Your task to perform on an android device: toggle sleep mode Image 0: 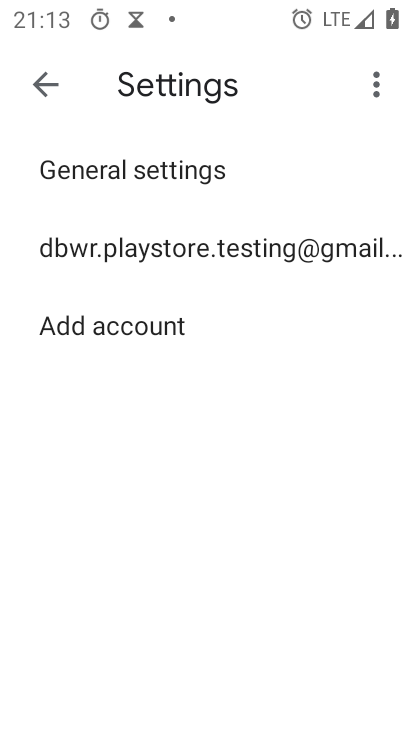
Step 0: press home button
Your task to perform on an android device: toggle sleep mode Image 1: 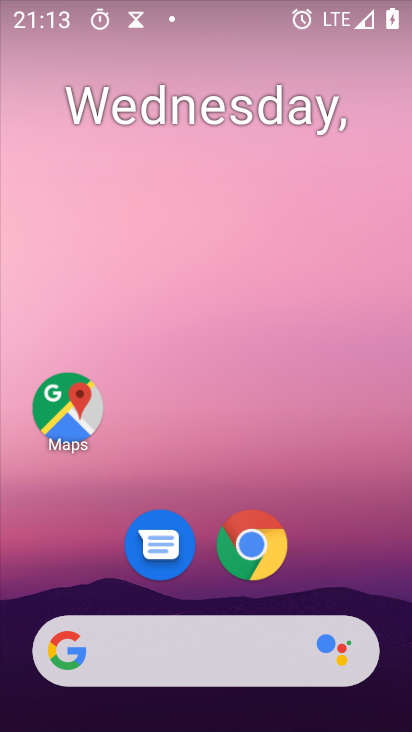
Step 1: drag from (186, 652) to (352, 129)
Your task to perform on an android device: toggle sleep mode Image 2: 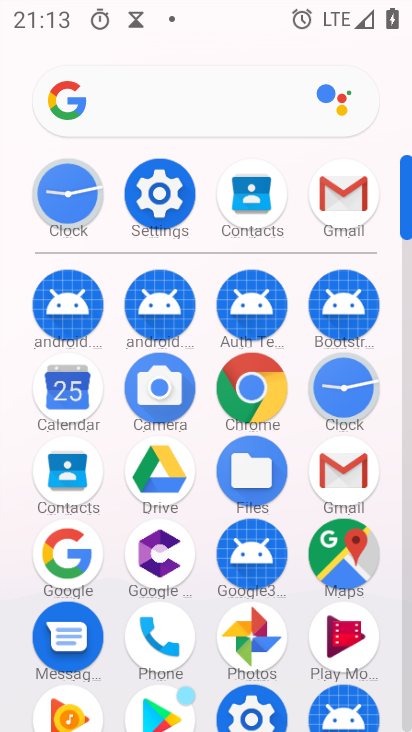
Step 2: click (165, 198)
Your task to perform on an android device: toggle sleep mode Image 3: 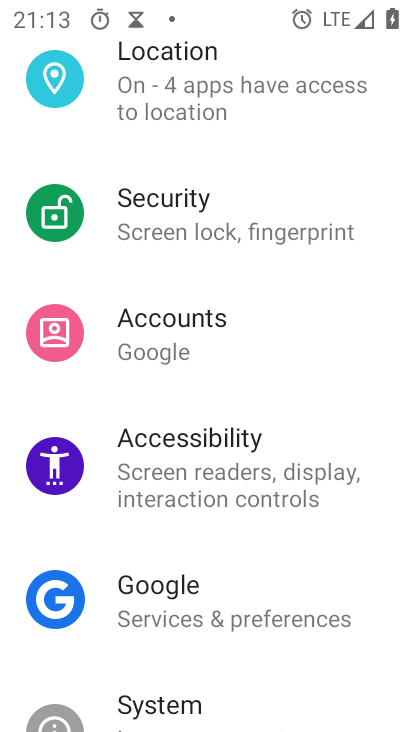
Step 3: drag from (292, 175) to (262, 559)
Your task to perform on an android device: toggle sleep mode Image 4: 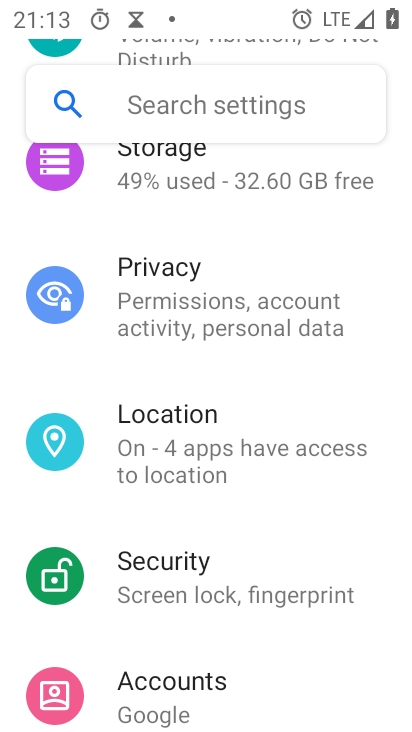
Step 4: drag from (293, 239) to (212, 571)
Your task to perform on an android device: toggle sleep mode Image 5: 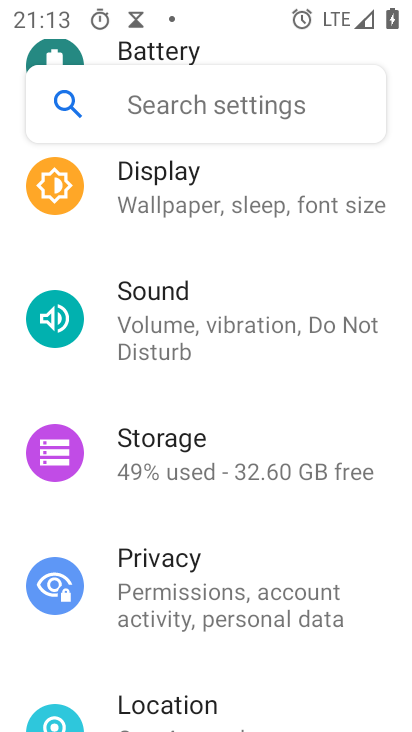
Step 5: click (181, 191)
Your task to perform on an android device: toggle sleep mode Image 6: 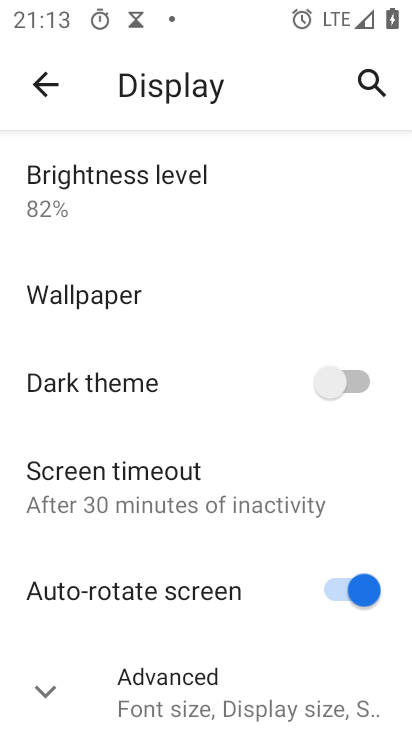
Step 6: task complete